Your task to perform on an android device: add a contact Image 0: 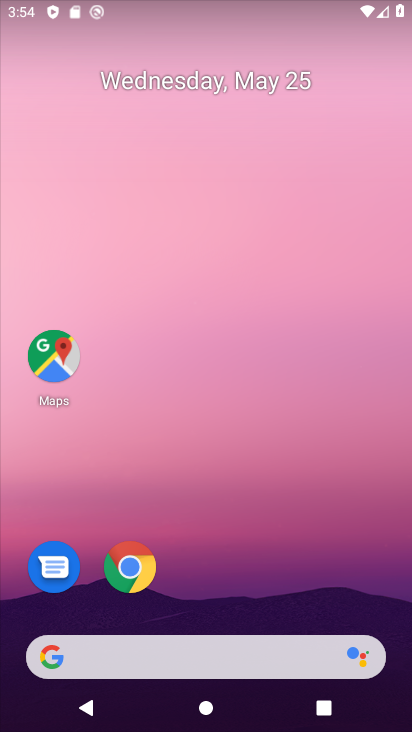
Step 0: drag from (188, 622) to (321, 80)
Your task to perform on an android device: add a contact Image 1: 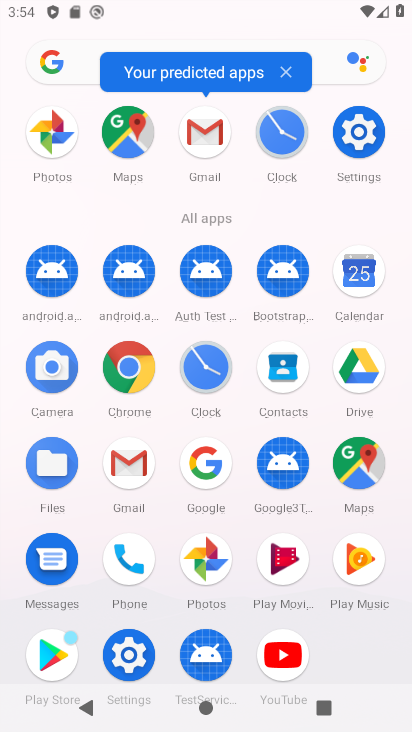
Step 1: click (286, 370)
Your task to perform on an android device: add a contact Image 2: 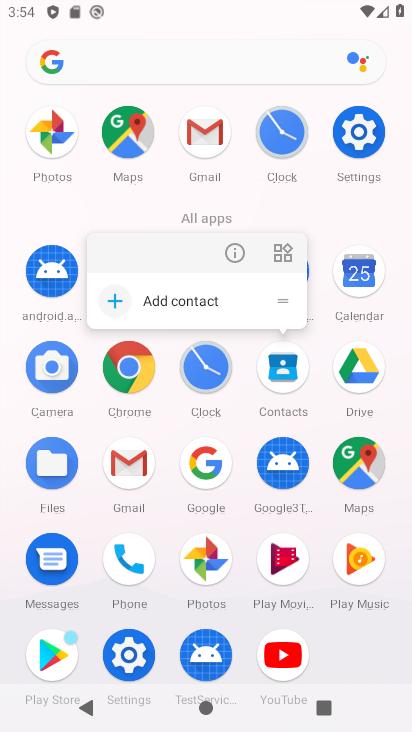
Step 2: click (295, 381)
Your task to perform on an android device: add a contact Image 3: 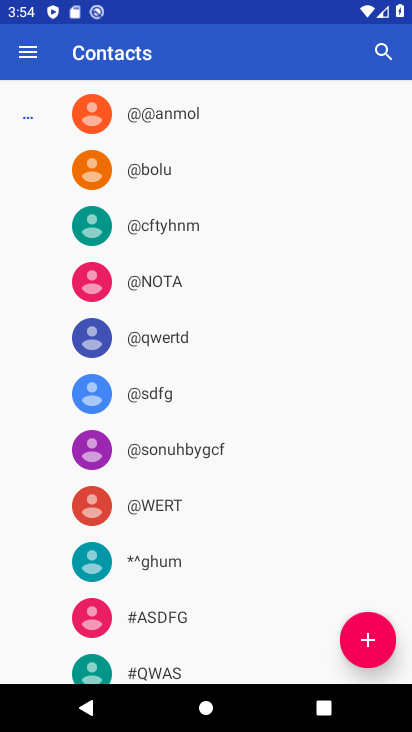
Step 3: click (378, 641)
Your task to perform on an android device: add a contact Image 4: 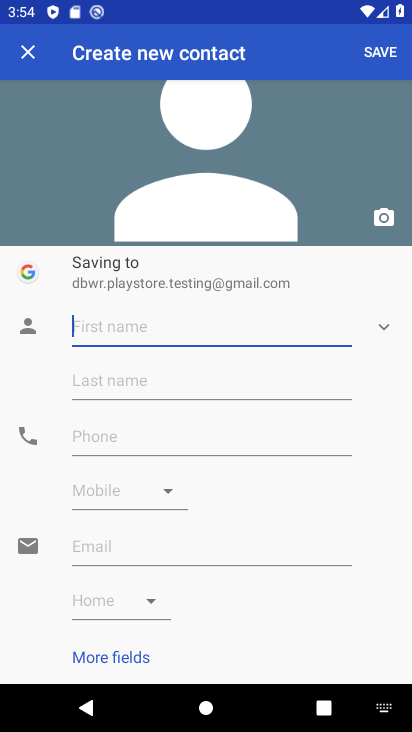
Step 4: type "jijiji"
Your task to perform on an android device: add a contact Image 5: 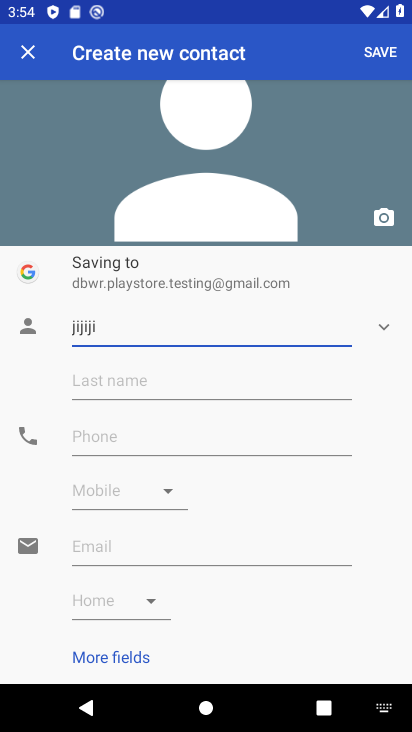
Step 5: click (125, 431)
Your task to perform on an android device: add a contact Image 6: 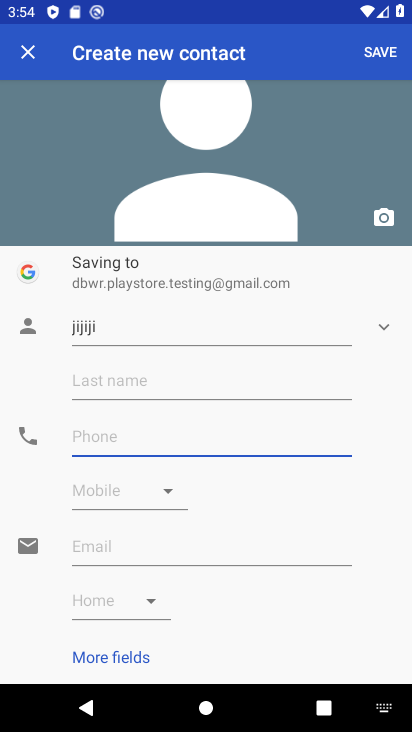
Step 6: type "7878787878"
Your task to perform on an android device: add a contact Image 7: 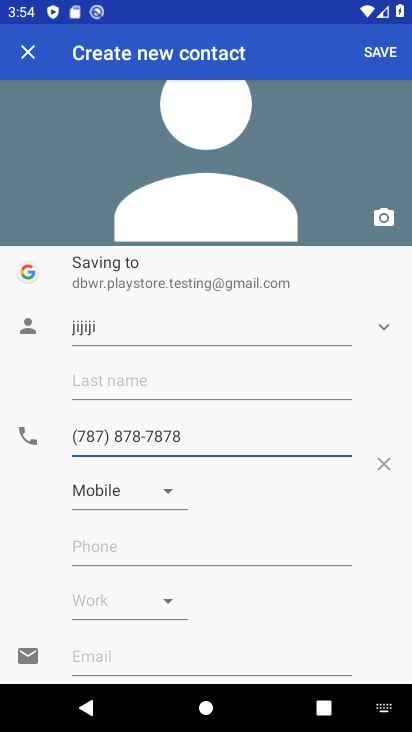
Step 7: click (384, 45)
Your task to perform on an android device: add a contact Image 8: 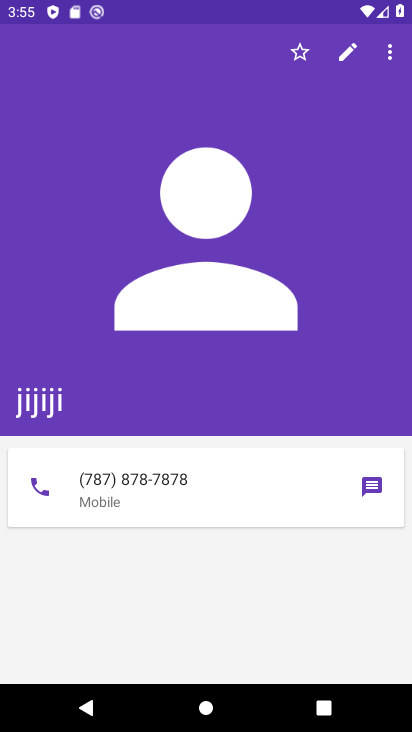
Step 8: task complete